Your task to perform on an android device: toggle airplane mode Image 0: 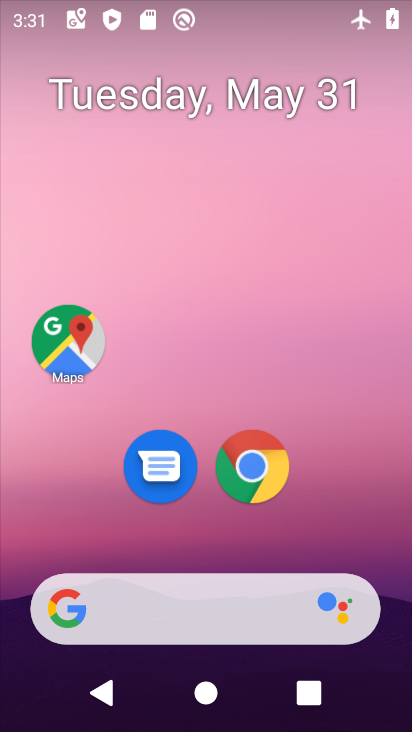
Step 0: drag from (336, 14) to (279, 529)
Your task to perform on an android device: toggle airplane mode Image 1: 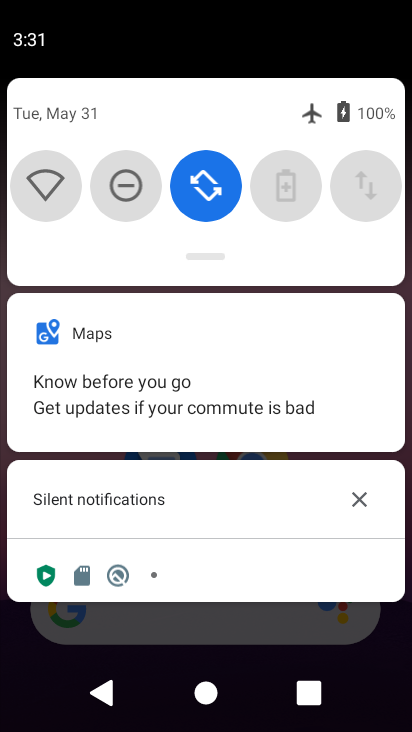
Step 1: drag from (206, 284) to (201, 635)
Your task to perform on an android device: toggle airplane mode Image 2: 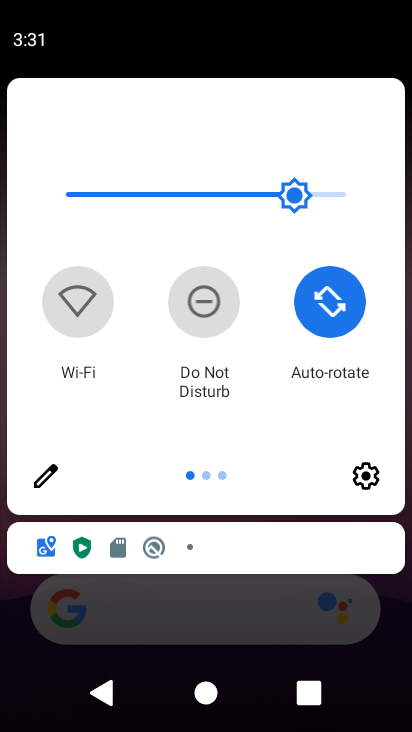
Step 2: drag from (288, 309) to (8, 323)
Your task to perform on an android device: toggle airplane mode Image 3: 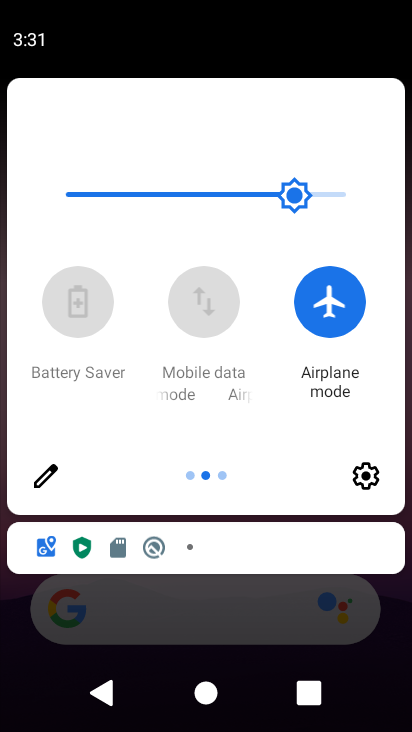
Step 3: click (337, 293)
Your task to perform on an android device: toggle airplane mode Image 4: 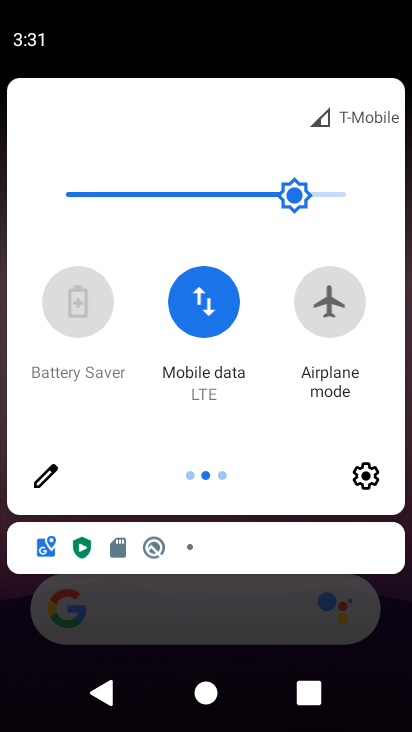
Step 4: task complete